Your task to perform on an android device: Open Chrome and go to the settings page Image 0: 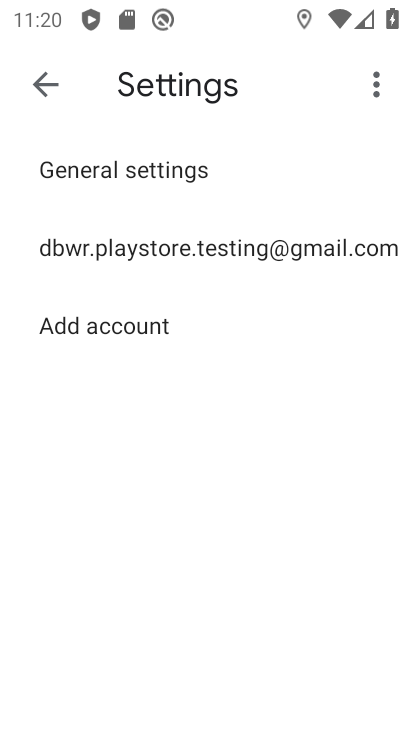
Step 0: press home button
Your task to perform on an android device: Open Chrome and go to the settings page Image 1: 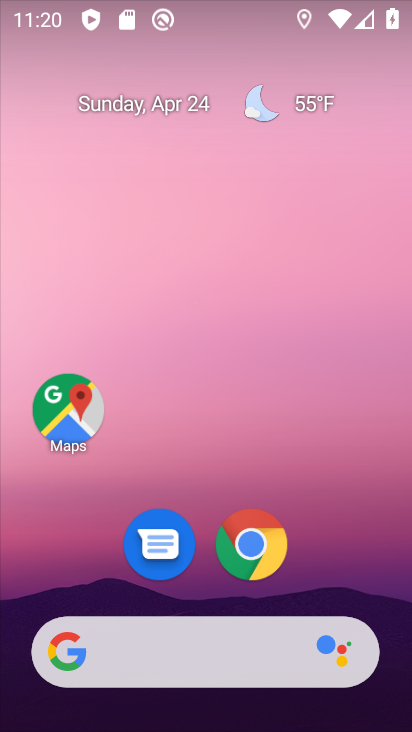
Step 1: click (269, 544)
Your task to perform on an android device: Open Chrome and go to the settings page Image 2: 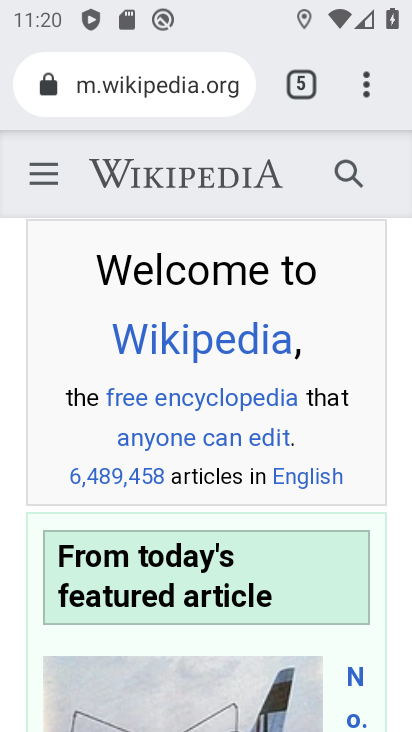
Step 2: task complete